Your task to perform on an android device: Open privacy settings Image 0: 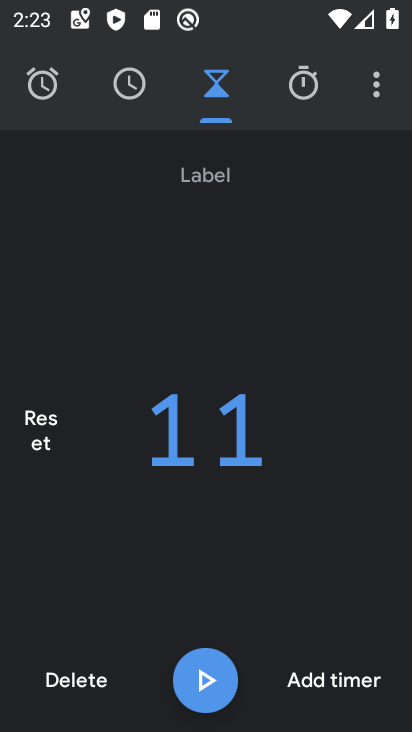
Step 0: press home button
Your task to perform on an android device: Open privacy settings Image 1: 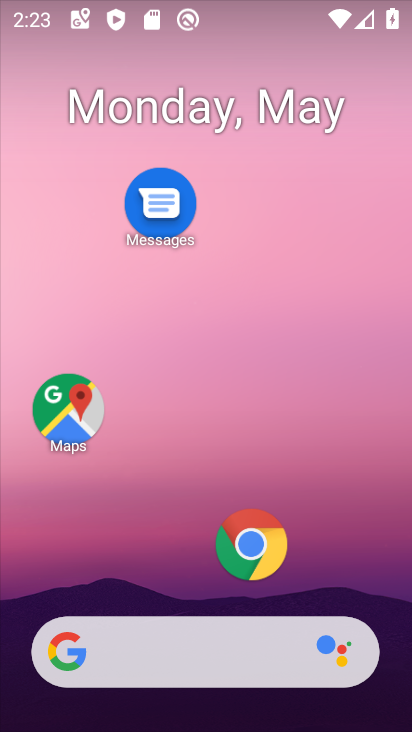
Step 1: drag from (193, 596) to (191, 221)
Your task to perform on an android device: Open privacy settings Image 2: 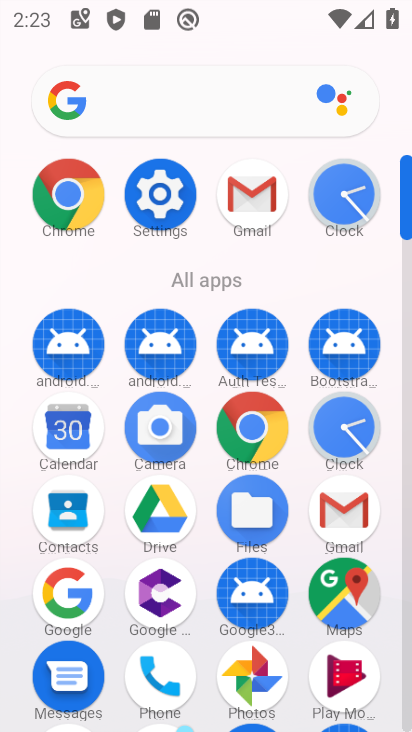
Step 2: click (160, 208)
Your task to perform on an android device: Open privacy settings Image 3: 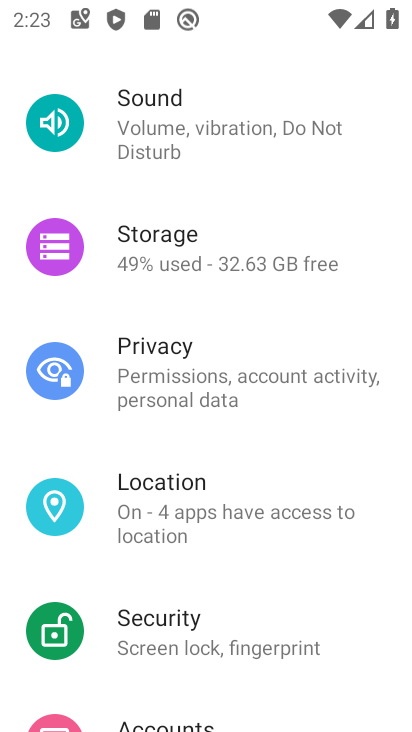
Step 3: drag from (201, 631) to (203, 464)
Your task to perform on an android device: Open privacy settings Image 4: 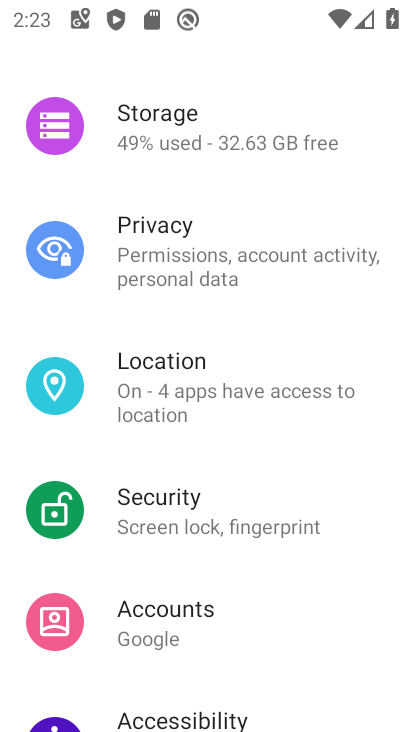
Step 4: click (206, 274)
Your task to perform on an android device: Open privacy settings Image 5: 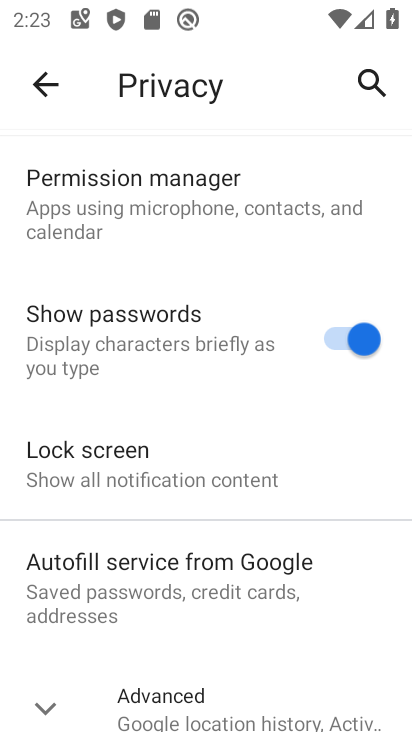
Step 5: task complete